Your task to perform on an android device: Go to accessibility settings Image 0: 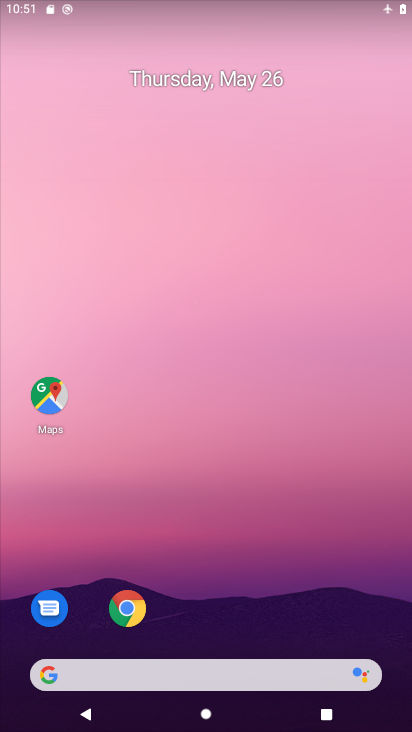
Step 0: drag from (401, 709) to (316, 210)
Your task to perform on an android device: Go to accessibility settings Image 1: 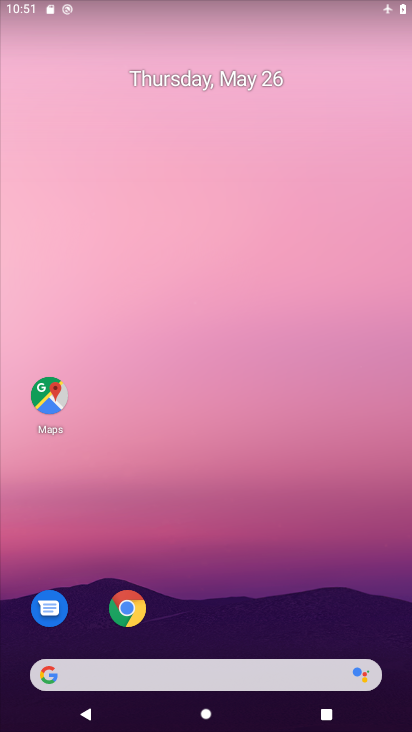
Step 1: drag from (395, 602) to (339, 126)
Your task to perform on an android device: Go to accessibility settings Image 2: 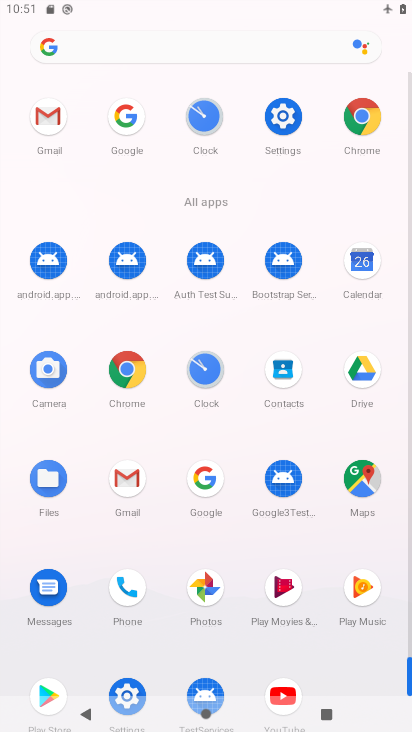
Step 2: click (286, 125)
Your task to perform on an android device: Go to accessibility settings Image 3: 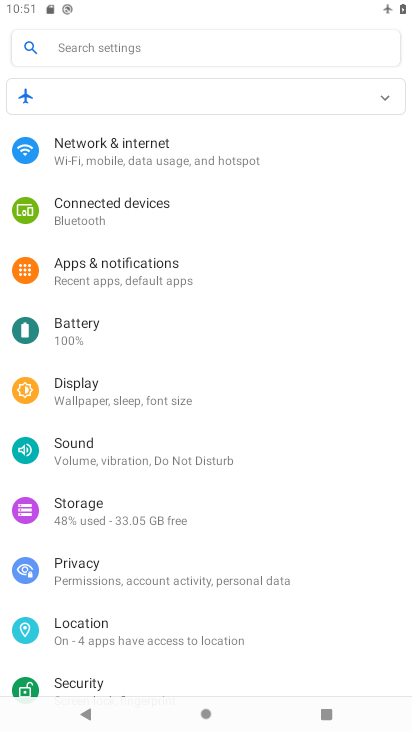
Step 3: drag from (296, 632) to (303, 254)
Your task to perform on an android device: Go to accessibility settings Image 4: 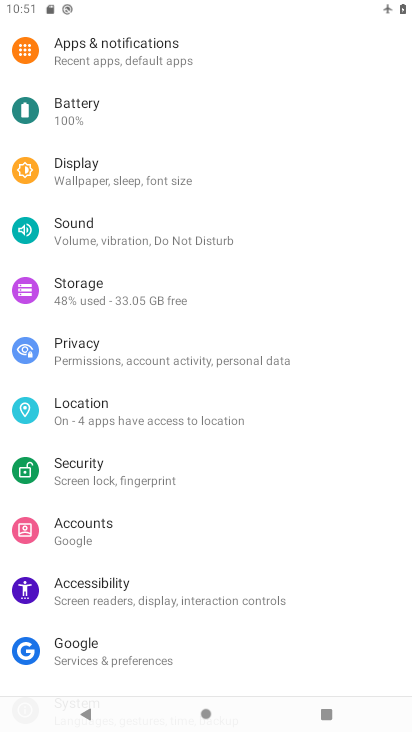
Step 4: click (112, 596)
Your task to perform on an android device: Go to accessibility settings Image 5: 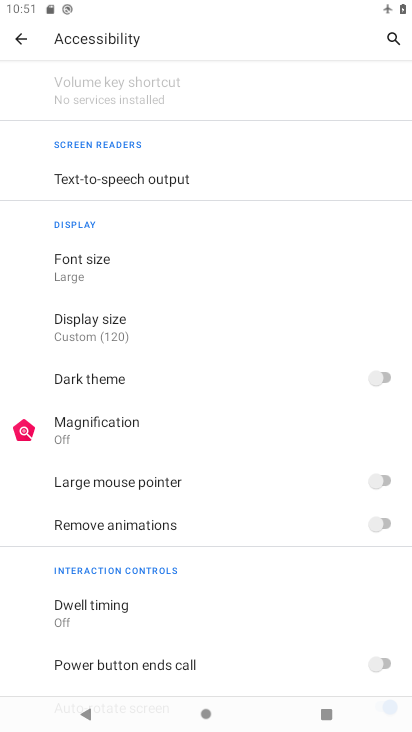
Step 5: task complete